Your task to perform on an android device: Open Maps and search for coffee Image 0: 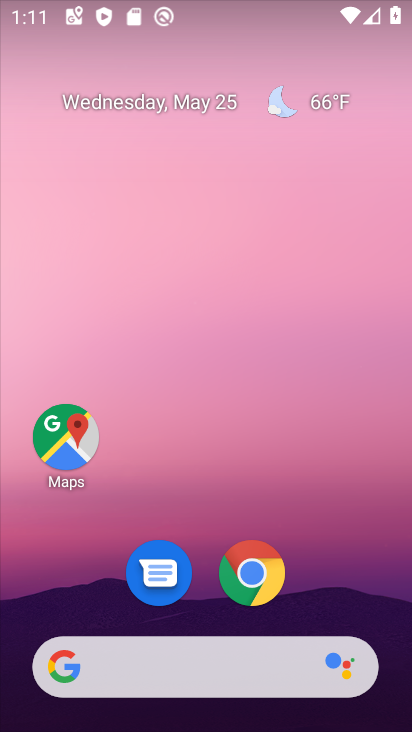
Step 0: click (66, 430)
Your task to perform on an android device: Open Maps and search for coffee Image 1: 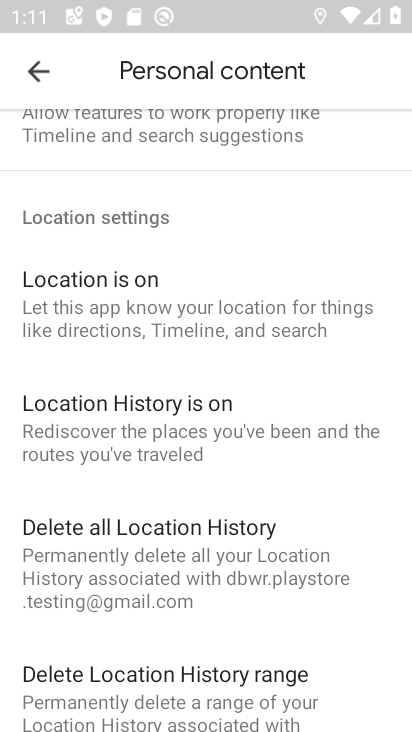
Step 1: press back button
Your task to perform on an android device: Open Maps and search for coffee Image 2: 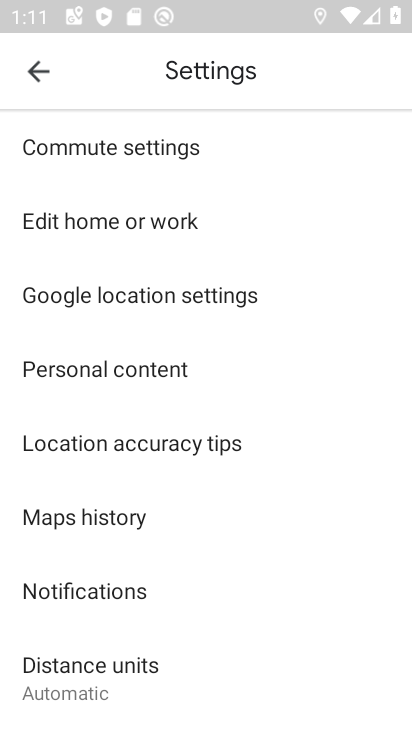
Step 2: press back button
Your task to perform on an android device: Open Maps and search for coffee Image 3: 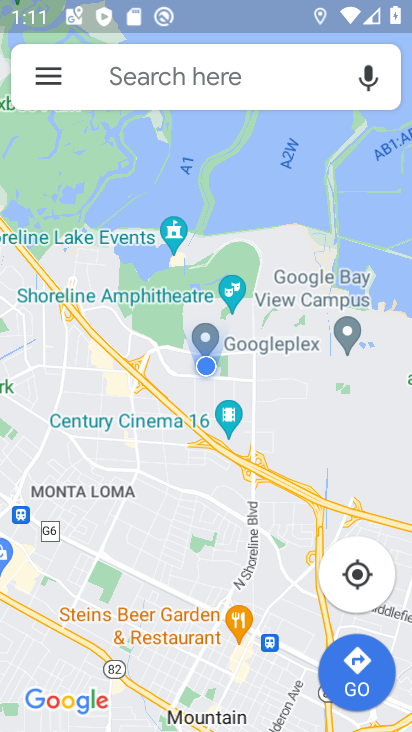
Step 3: click (130, 79)
Your task to perform on an android device: Open Maps and search for coffee Image 4: 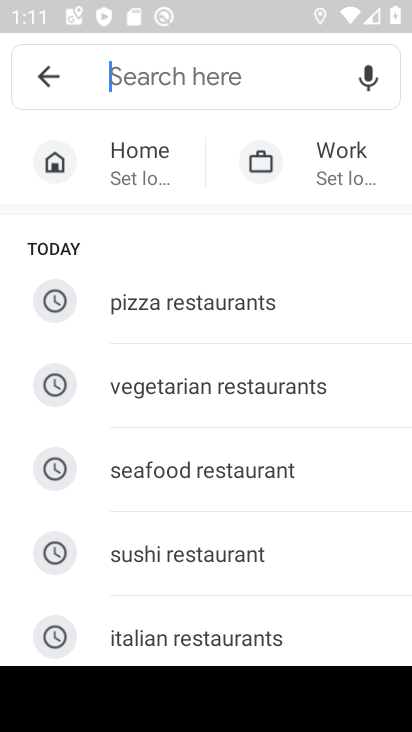
Step 4: type "coffee"
Your task to perform on an android device: Open Maps and search for coffee Image 5: 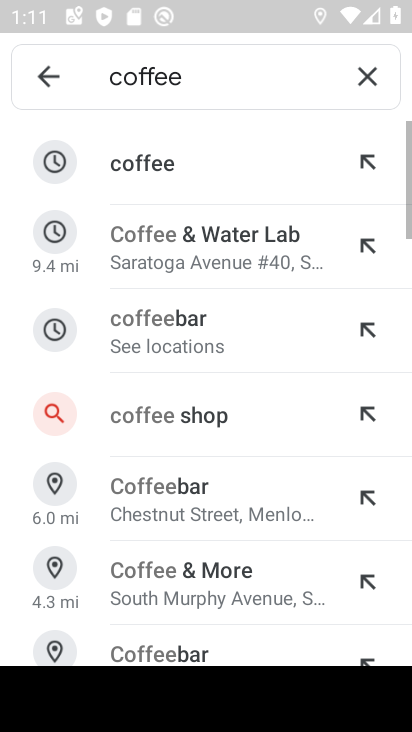
Step 5: click (167, 165)
Your task to perform on an android device: Open Maps and search for coffee Image 6: 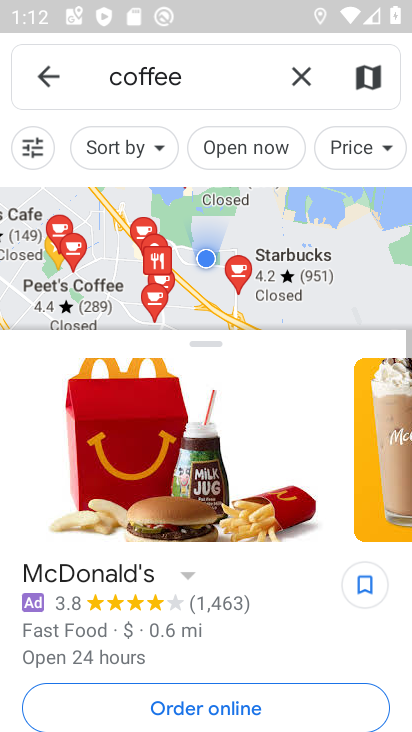
Step 6: task complete